Your task to perform on an android device: Open Youtube and go to the subscriptions tab Image 0: 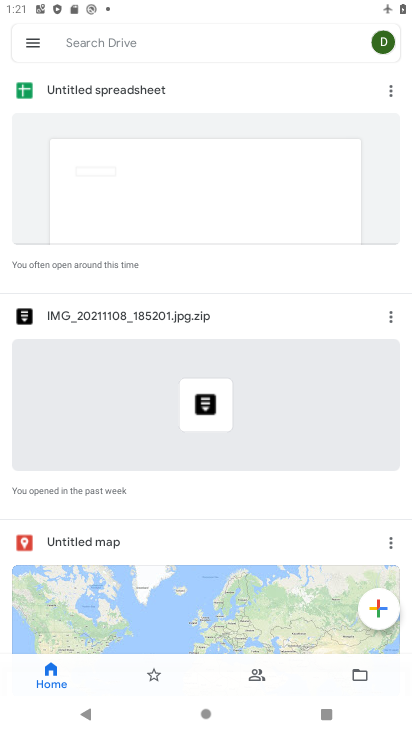
Step 0: press home button
Your task to perform on an android device: Open Youtube and go to the subscriptions tab Image 1: 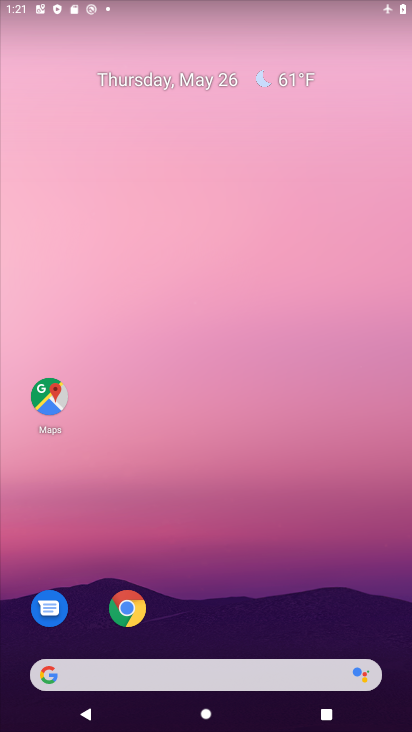
Step 1: drag from (338, 648) to (309, 9)
Your task to perform on an android device: Open Youtube and go to the subscriptions tab Image 2: 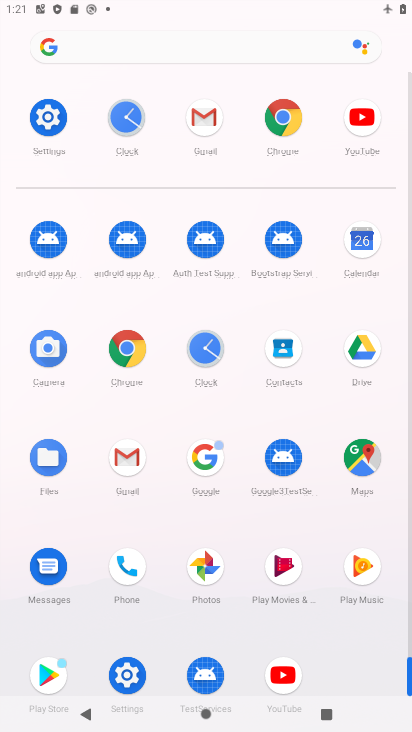
Step 2: click (284, 678)
Your task to perform on an android device: Open Youtube and go to the subscriptions tab Image 3: 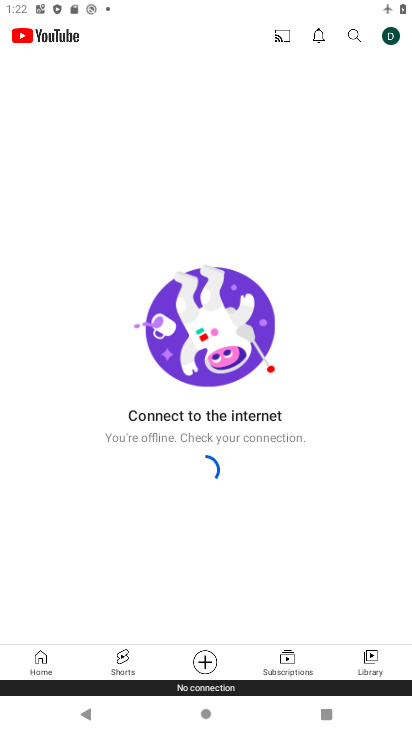
Step 3: click (287, 658)
Your task to perform on an android device: Open Youtube and go to the subscriptions tab Image 4: 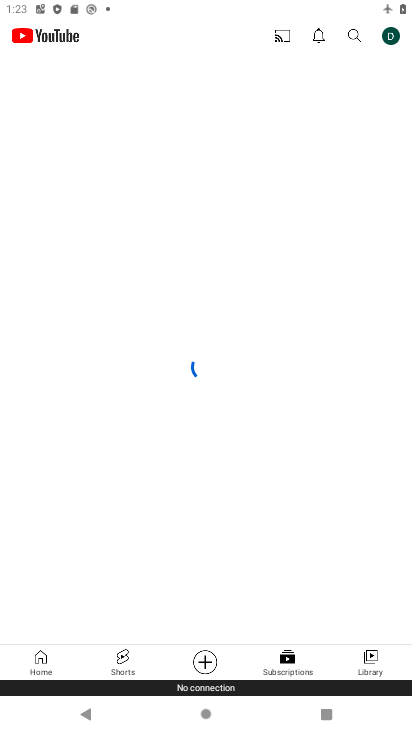
Step 4: task complete